Your task to perform on an android device: Search for the best rated 4K TV on Best Buy. Image 0: 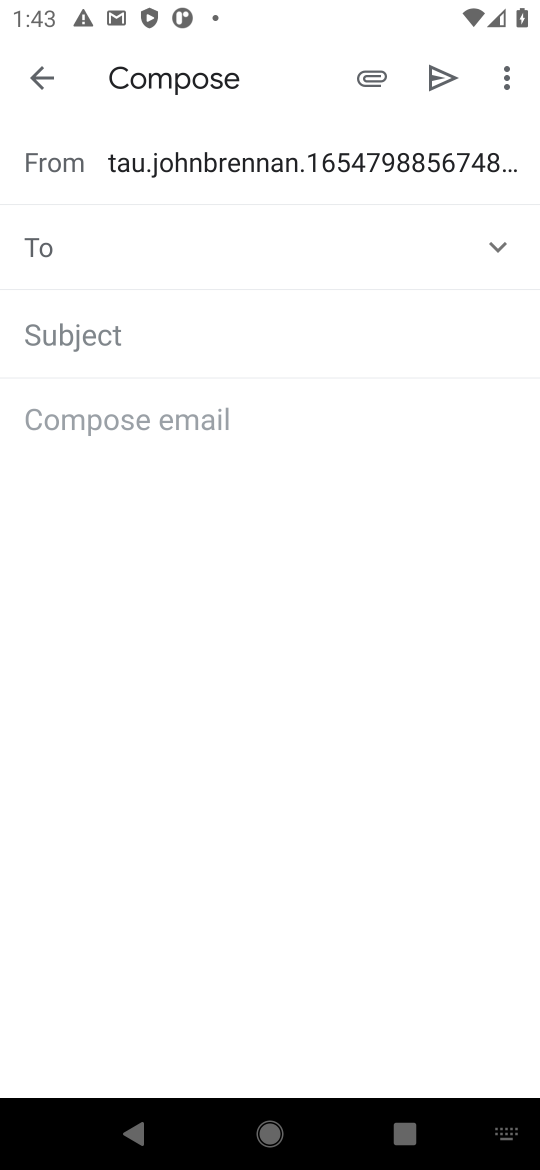
Step 0: press home button
Your task to perform on an android device: Search for the best rated 4K TV on Best Buy. Image 1: 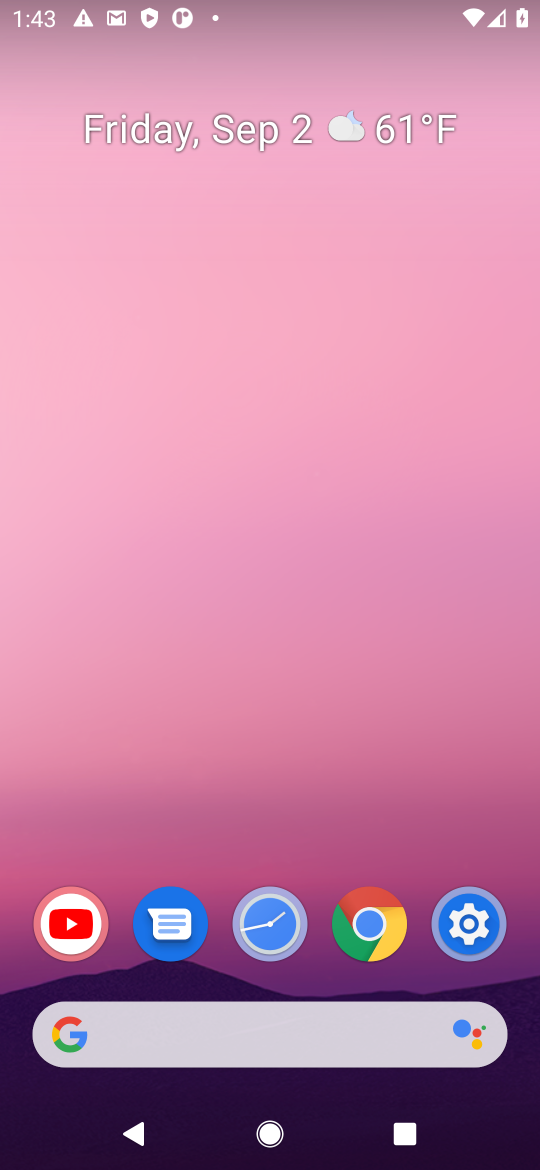
Step 1: click (373, 1022)
Your task to perform on an android device: Search for the best rated 4K TV on Best Buy. Image 2: 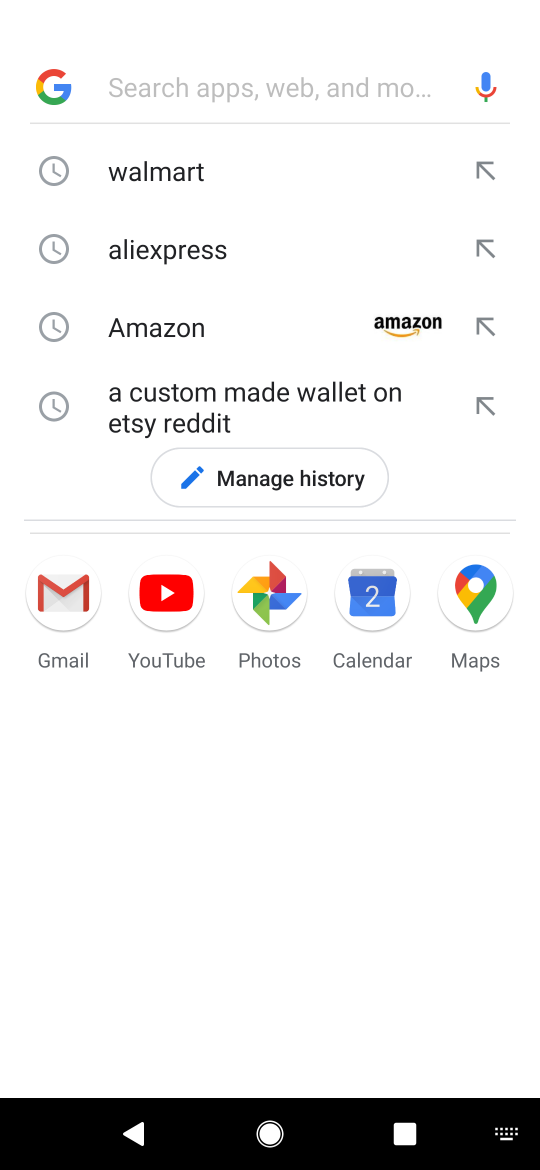
Step 2: press enter
Your task to perform on an android device: Search for the best rated 4K TV on Best Buy. Image 3: 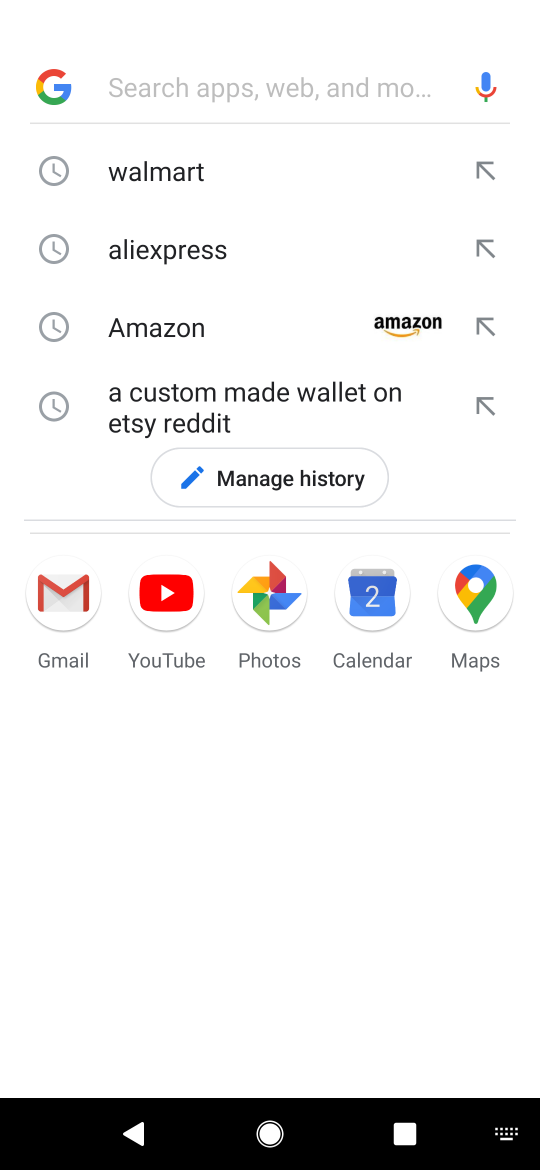
Step 3: type "best buy"
Your task to perform on an android device: Search for the best rated 4K TV on Best Buy. Image 4: 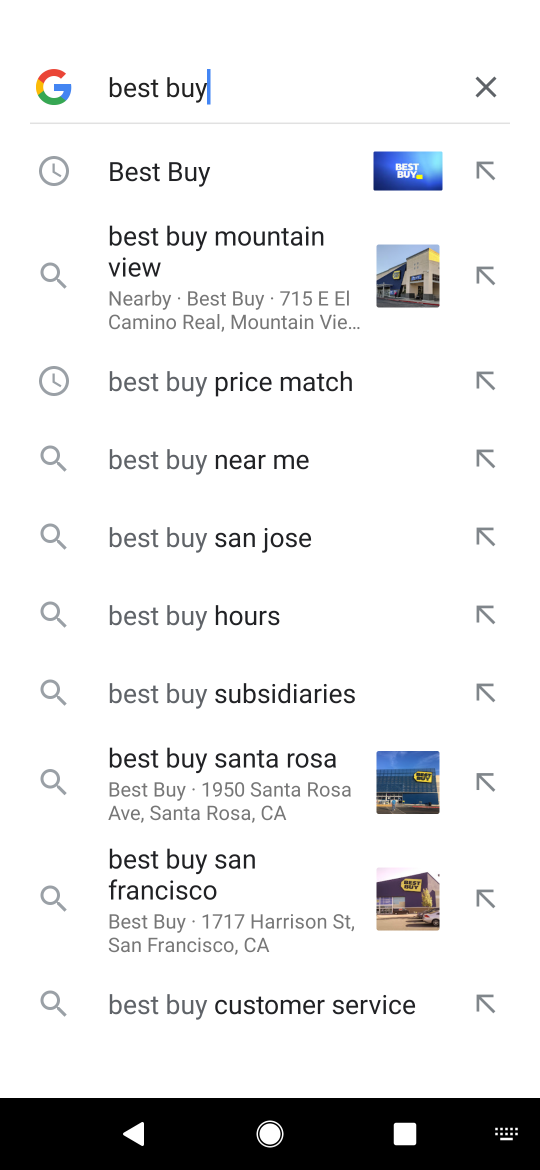
Step 4: click (171, 165)
Your task to perform on an android device: Search for the best rated 4K TV on Best Buy. Image 5: 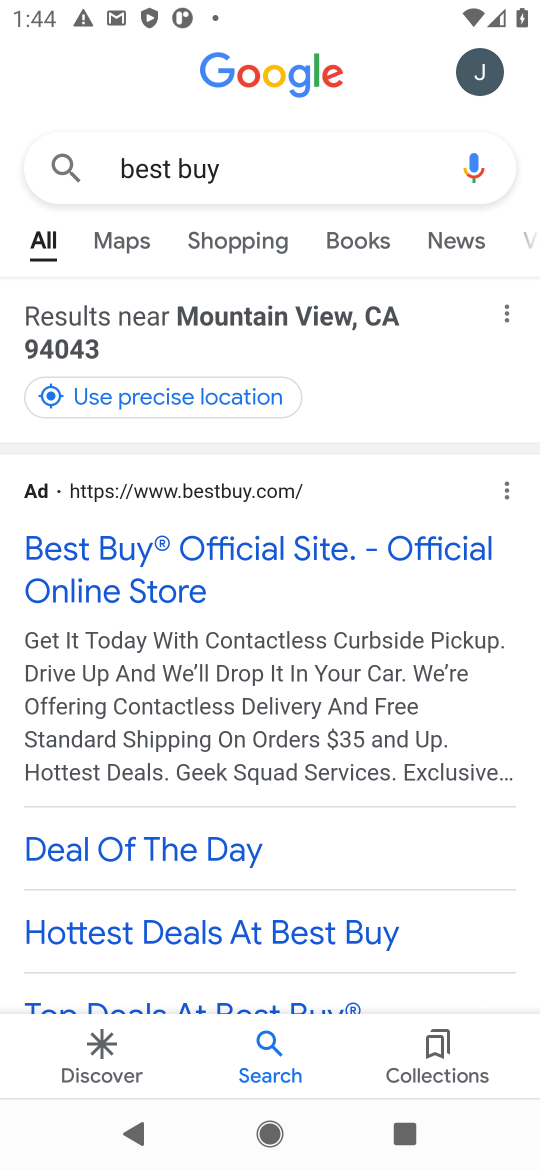
Step 5: click (225, 547)
Your task to perform on an android device: Search for the best rated 4K TV on Best Buy. Image 6: 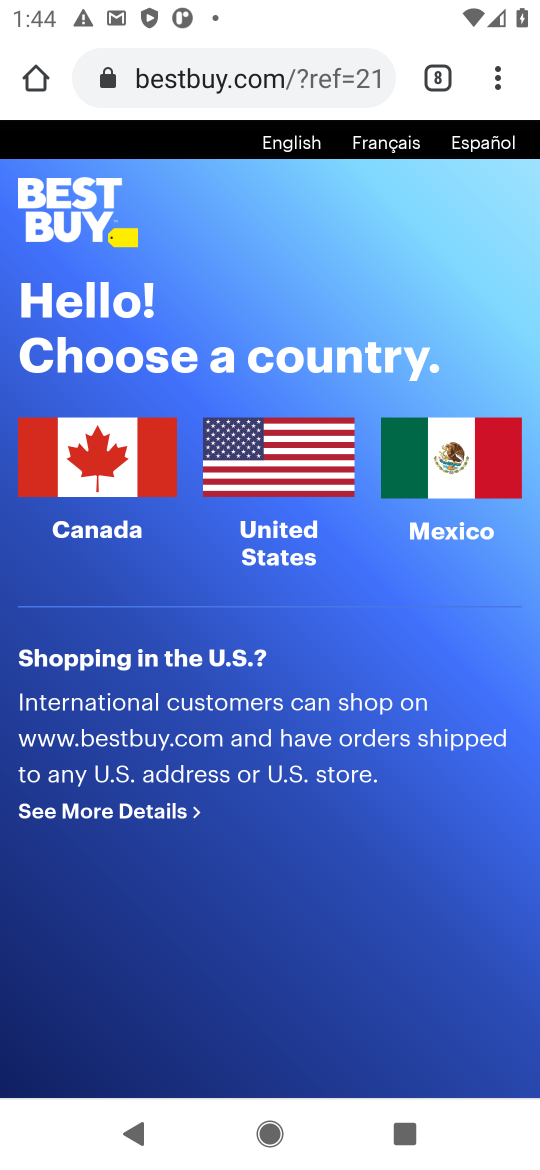
Step 6: click (110, 468)
Your task to perform on an android device: Search for the best rated 4K TV on Best Buy. Image 7: 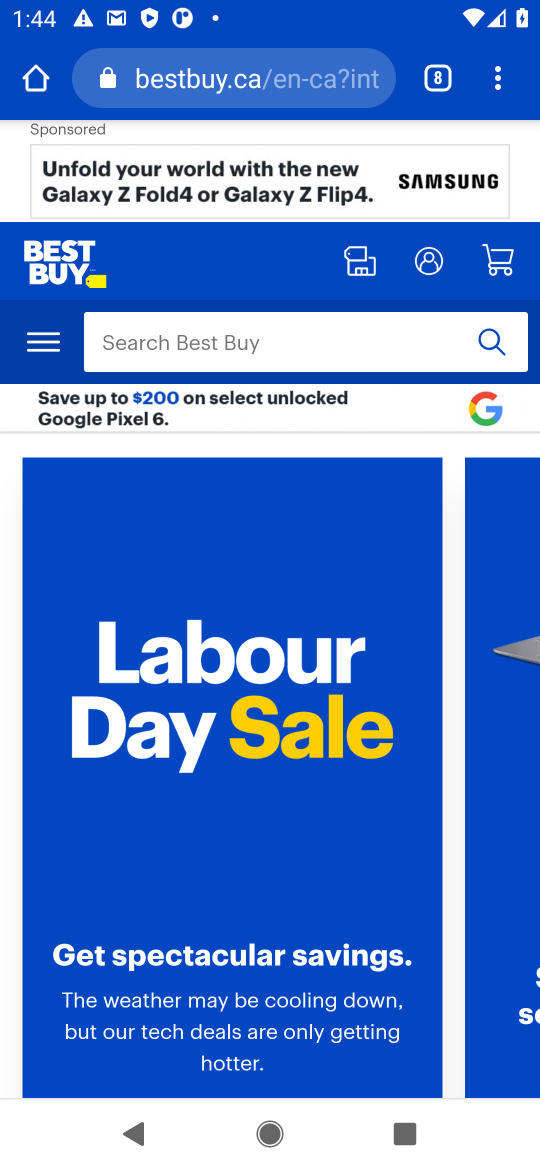
Step 7: click (129, 339)
Your task to perform on an android device: Search for the best rated 4K TV on Best Buy. Image 8: 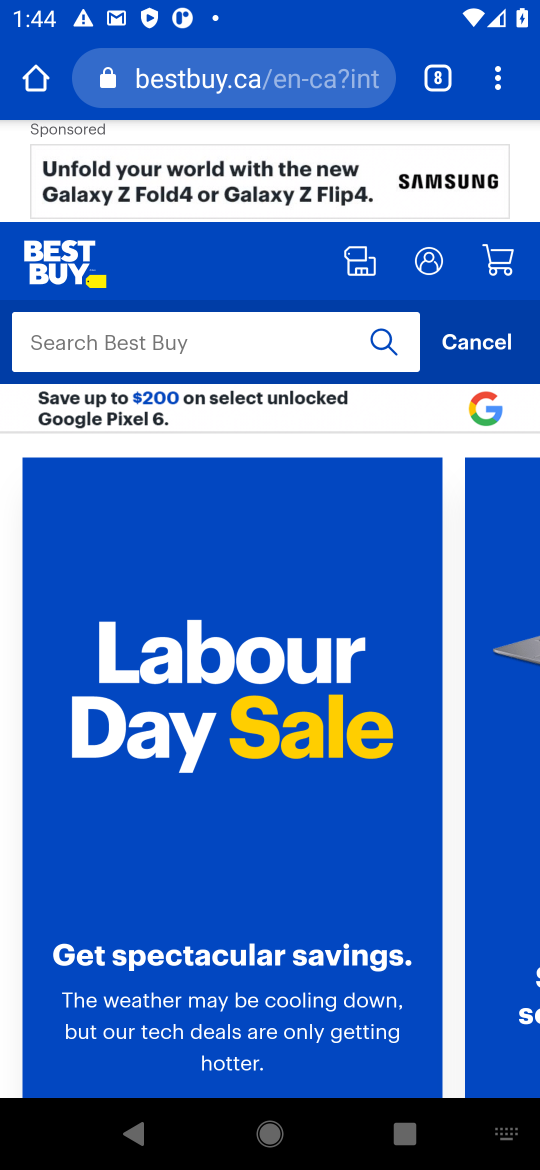
Step 8: type "4k tv"
Your task to perform on an android device: Search for the best rated 4K TV on Best Buy. Image 9: 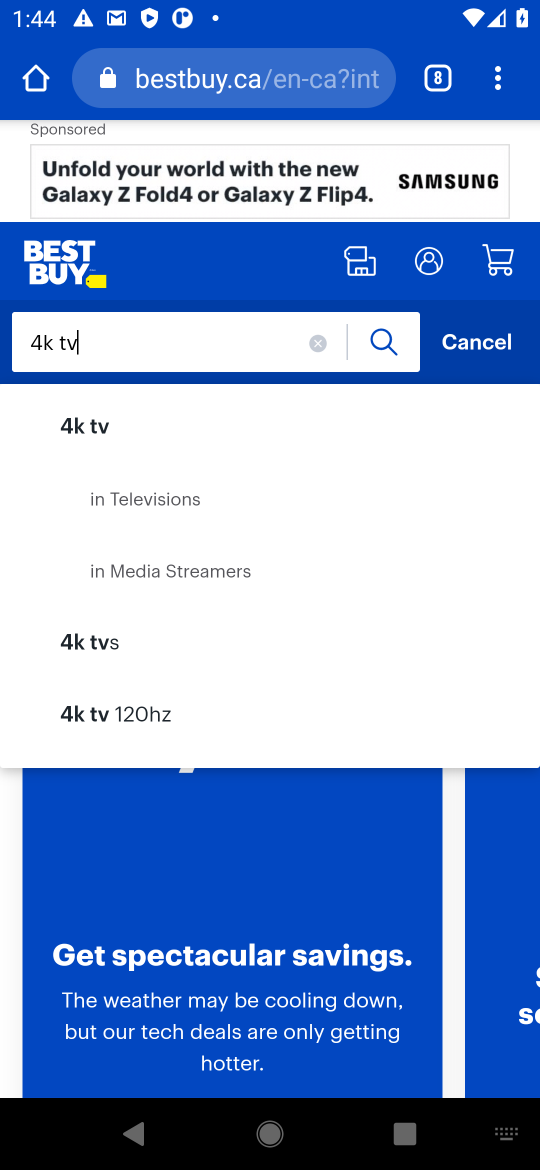
Step 9: click (114, 424)
Your task to perform on an android device: Search for the best rated 4K TV on Best Buy. Image 10: 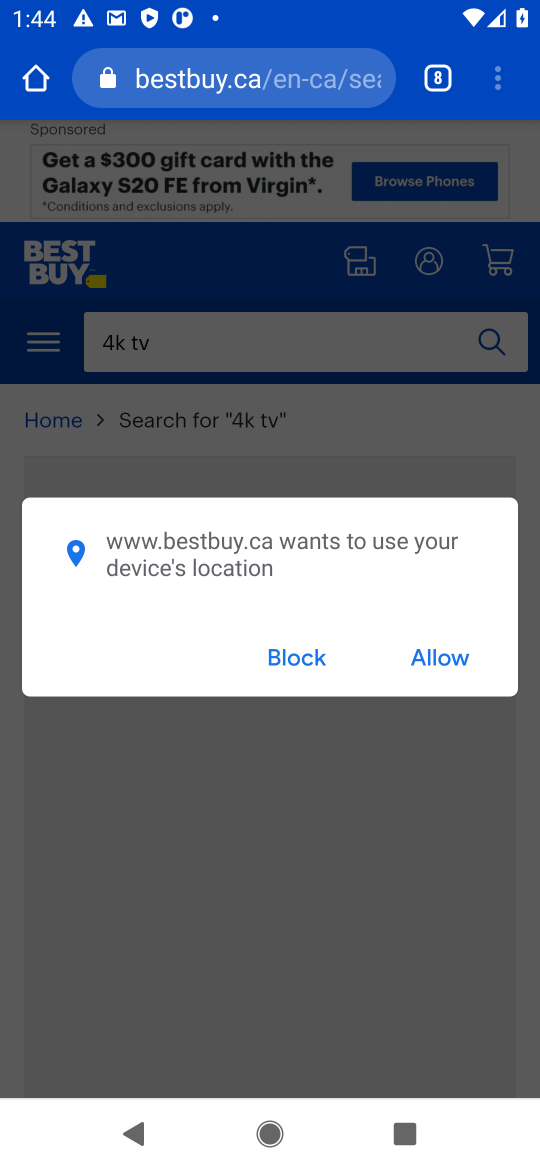
Step 10: click (288, 651)
Your task to perform on an android device: Search for the best rated 4K TV on Best Buy. Image 11: 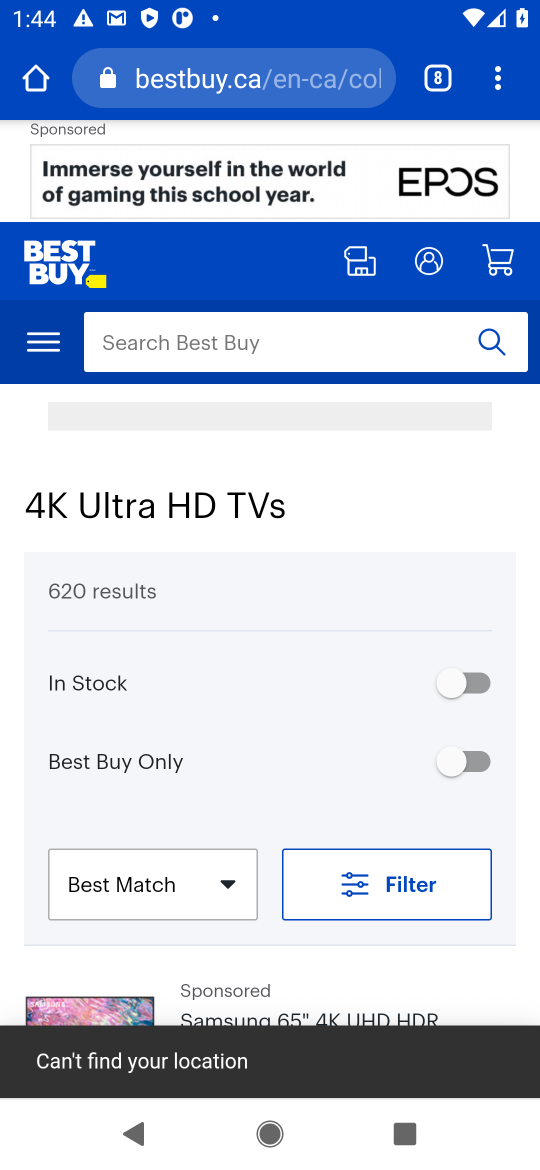
Step 11: task complete